Your task to perform on an android device: turn vacation reply on in the gmail app Image 0: 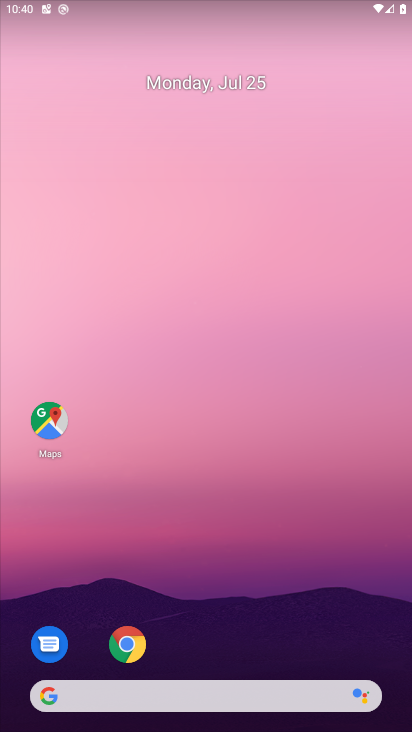
Step 0: press home button
Your task to perform on an android device: turn vacation reply on in the gmail app Image 1: 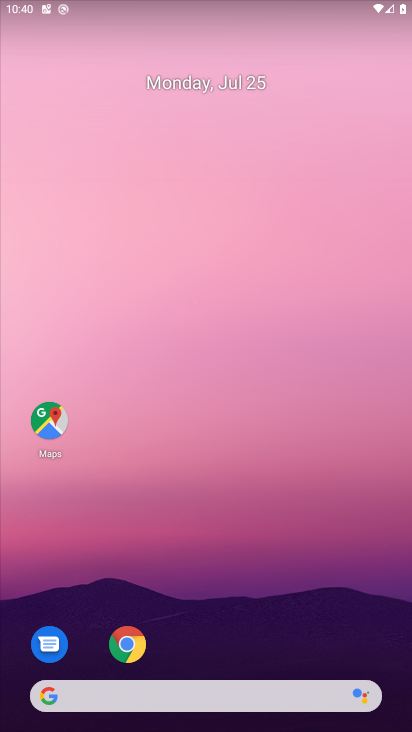
Step 1: drag from (248, 676) to (267, 473)
Your task to perform on an android device: turn vacation reply on in the gmail app Image 2: 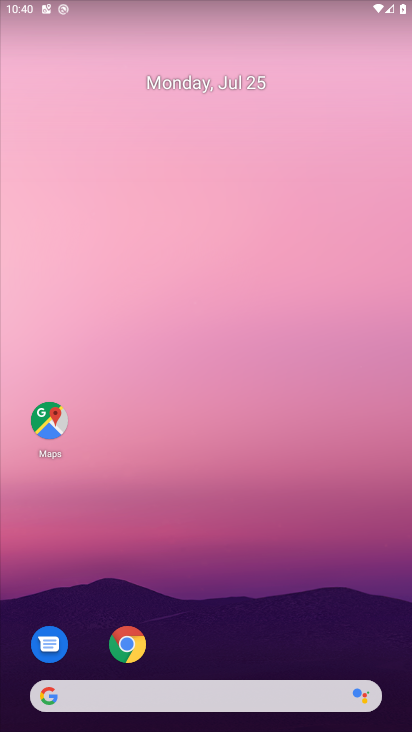
Step 2: drag from (196, 602) to (132, 37)
Your task to perform on an android device: turn vacation reply on in the gmail app Image 3: 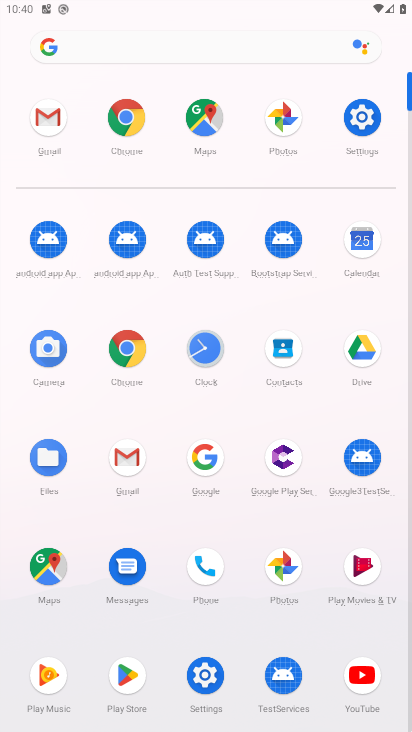
Step 3: click (125, 459)
Your task to perform on an android device: turn vacation reply on in the gmail app Image 4: 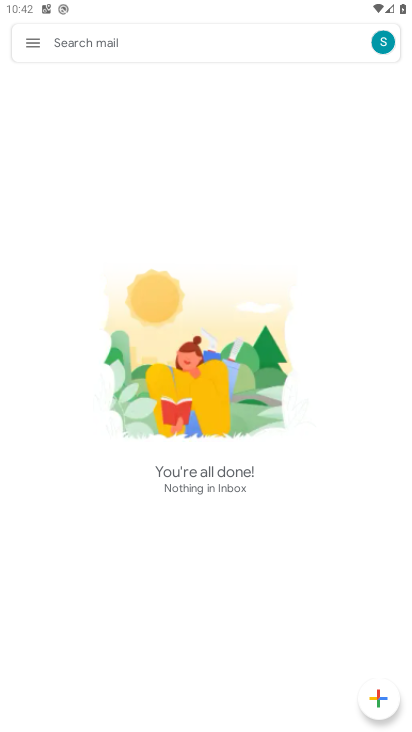
Step 4: click (25, 43)
Your task to perform on an android device: turn vacation reply on in the gmail app Image 5: 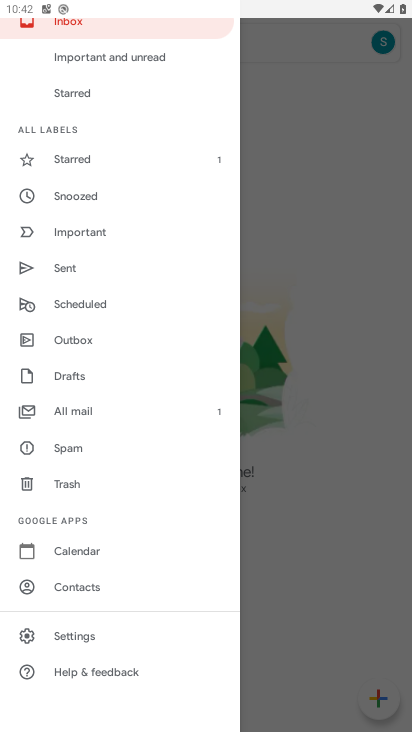
Step 5: click (64, 626)
Your task to perform on an android device: turn vacation reply on in the gmail app Image 6: 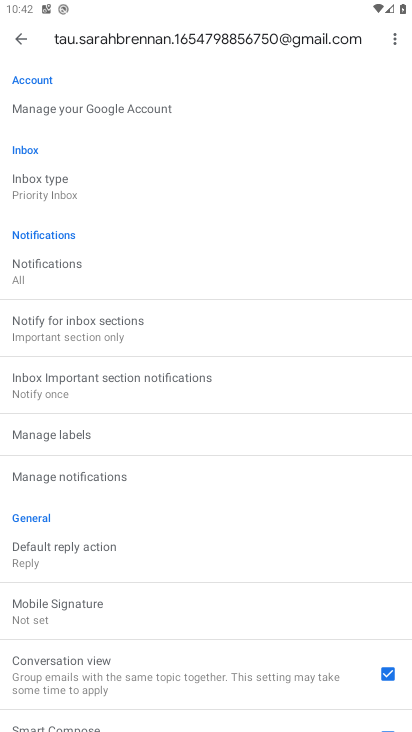
Step 6: drag from (55, 629) to (92, 161)
Your task to perform on an android device: turn vacation reply on in the gmail app Image 7: 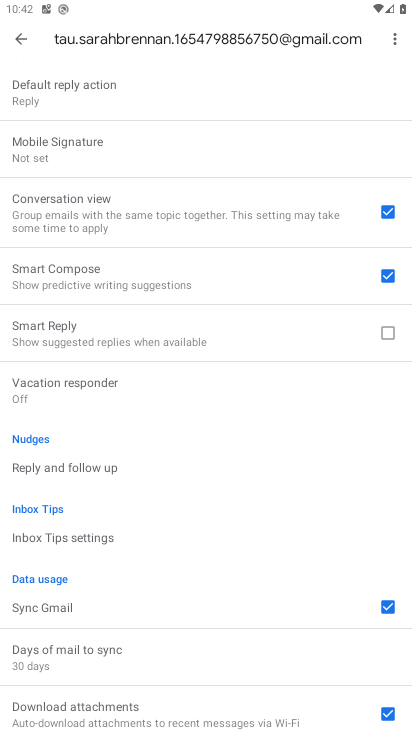
Step 7: click (83, 391)
Your task to perform on an android device: turn vacation reply on in the gmail app Image 8: 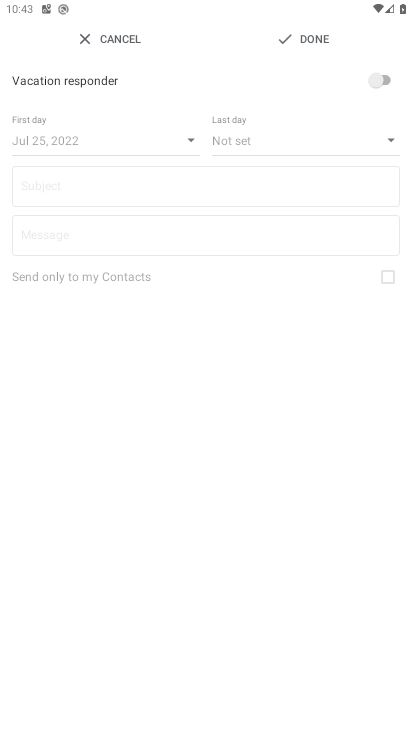
Step 8: click (378, 72)
Your task to perform on an android device: turn vacation reply on in the gmail app Image 9: 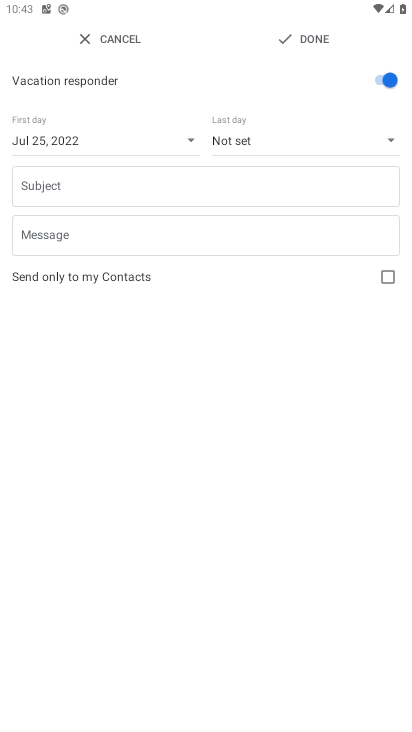
Step 9: click (106, 148)
Your task to perform on an android device: turn vacation reply on in the gmail app Image 10: 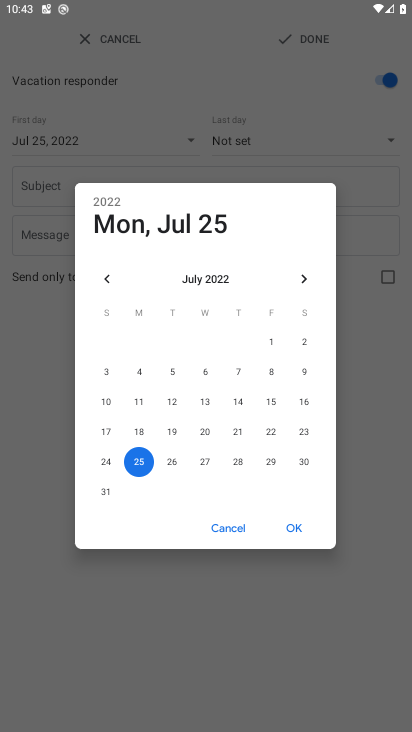
Step 10: click (182, 461)
Your task to perform on an android device: turn vacation reply on in the gmail app Image 11: 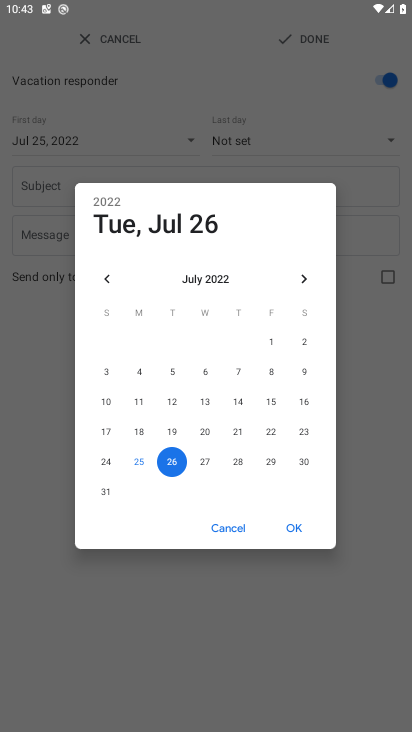
Step 11: click (309, 500)
Your task to perform on an android device: turn vacation reply on in the gmail app Image 12: 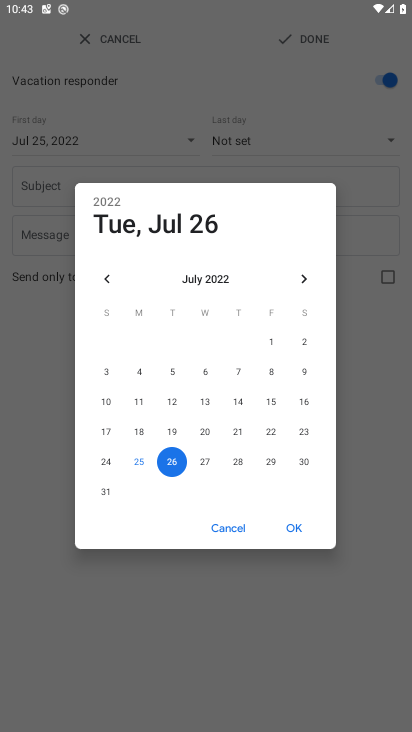
Step 12: click (295, 517)
Your task to perform on an android device: turn vacation reply on in the gmail app Image 13: 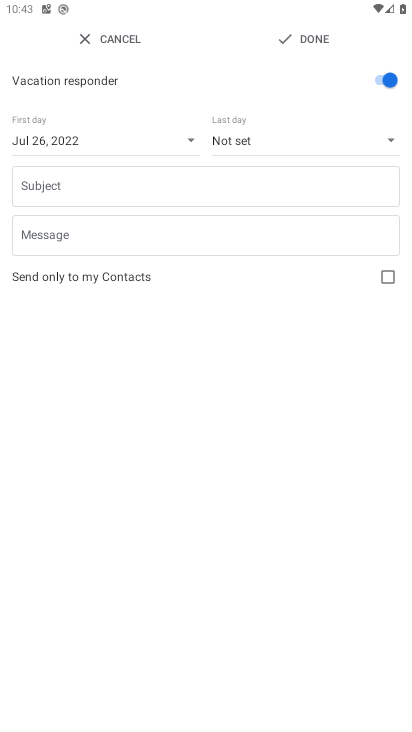
Step 13: click (396, 137)
Your task to perform on an android device: turn vacation reply on in the gmail app Image 14: 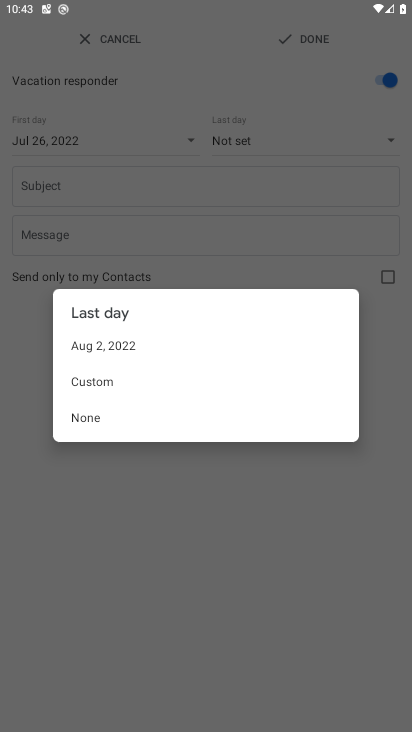
Step 14: click (105, 347)
Your task to perform on an android device: turn vacation reply on in the gmail app Image 15: 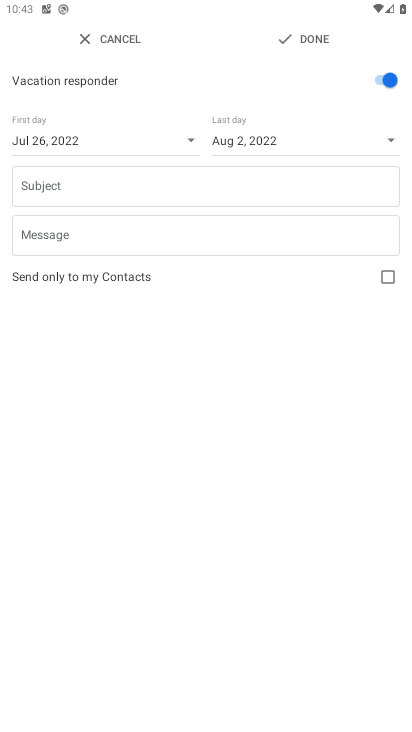
Step 15: click (80, 196)
Your task to perform on an android device: turn vacation reply on in the gmail app Image 16: 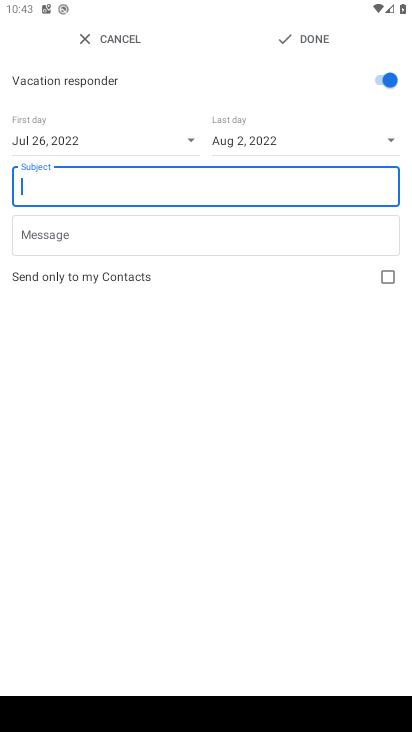
Step 16: type "BBT"
Your task to perform on an android device: turn vacation reply on in the gmail app Image 17: 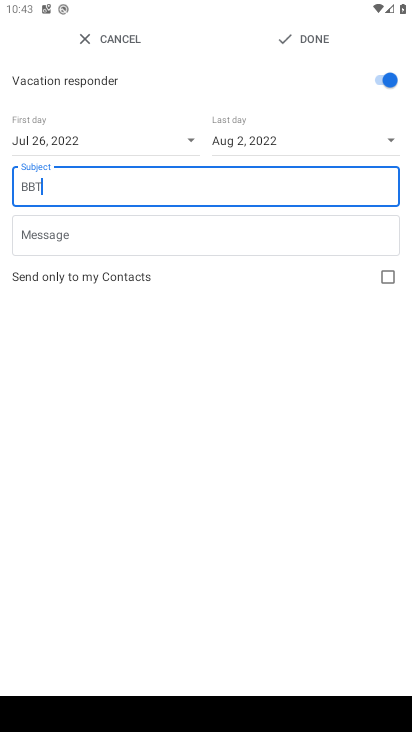
Step 17: click (183, 240)
Your task to perform on an android device: turn vacation reply on in the gmail app Image 18: 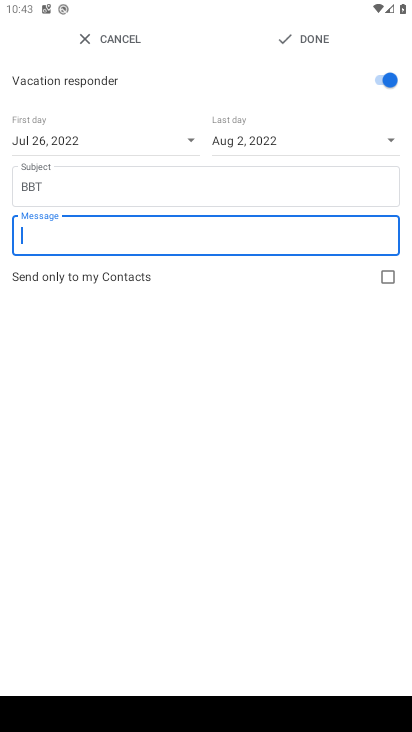
Step 18: click (183, 240)
Your task to perform on an android device: turn vacation reply on in the gmail app Image 19: 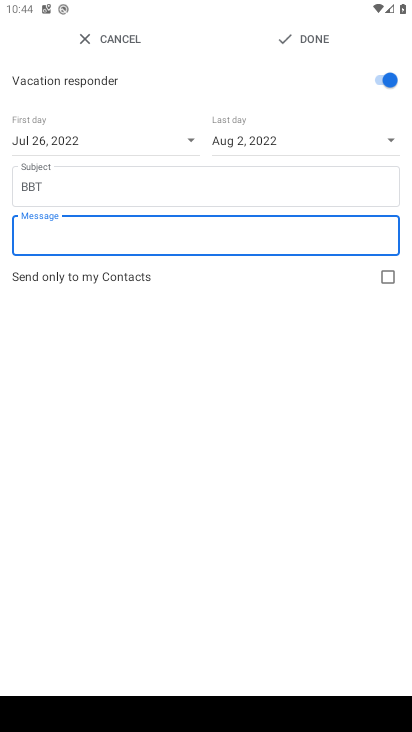
Step 19: type "BBT is a very nice car."
Your task to perform on an android device: turn vacation reply on in the gmail app Image 20: 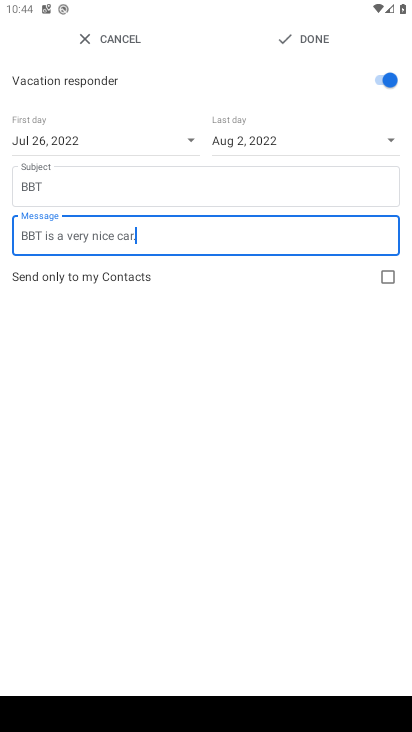
Step 20: click (323, 32)
Your task to perform on an android device: turn vacation reply on in the gmail app Image 21: 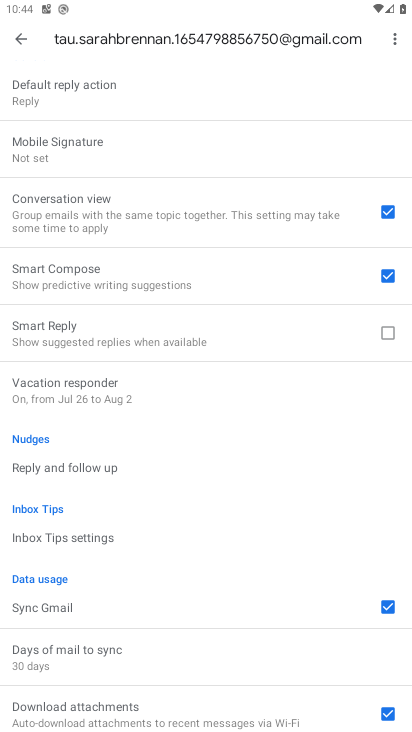
Step 21: task complete